Your task to perform on an android device: toggle translation in the chrome app Image 0: 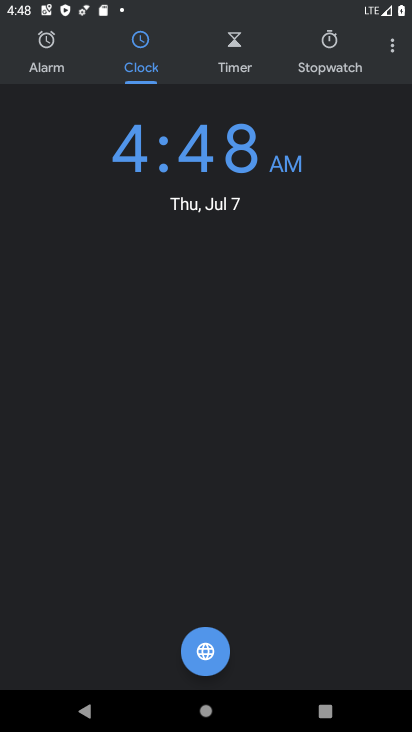
Step 0: press home button
Your task to perform on an android device: toggle translation in the chrome app Image 1: 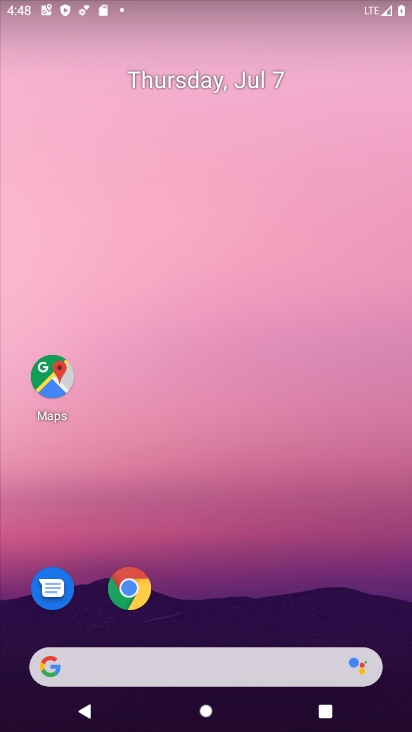
Step 1: drag from (258, 635) to (253, 19)
Your task to perform on an android device: toggle translation in the chrome app Image 2: 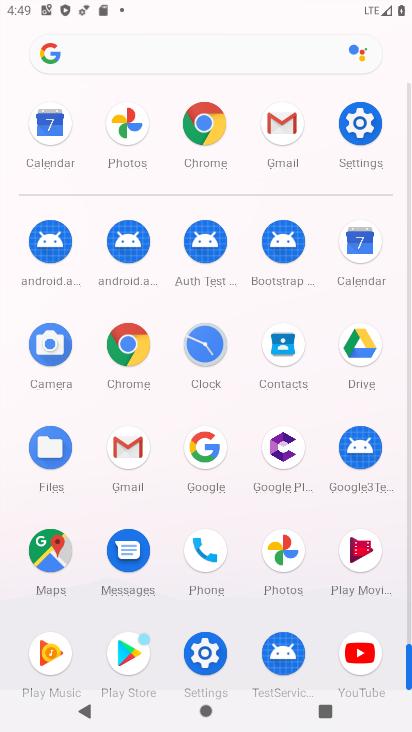
Step 2: click (128, 340)
Your task to perform on an android device: toggle translation in the chrome app Image 3: 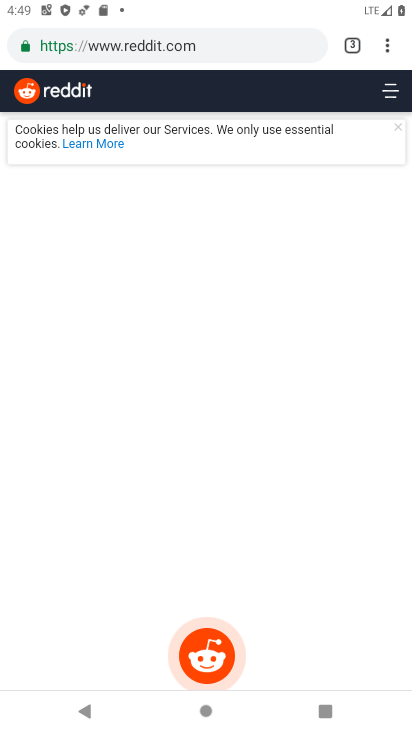
Step 3: click (383, 35)
Your task to perform on an android device: toggle translation in the chrome app Image 4: 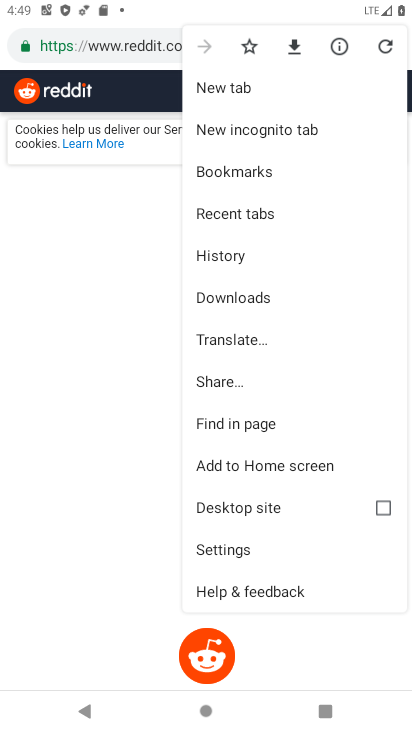
Step 4: click (240, 551)
Your task to perform on an android device: toggle translation in the chrome app Image 5: 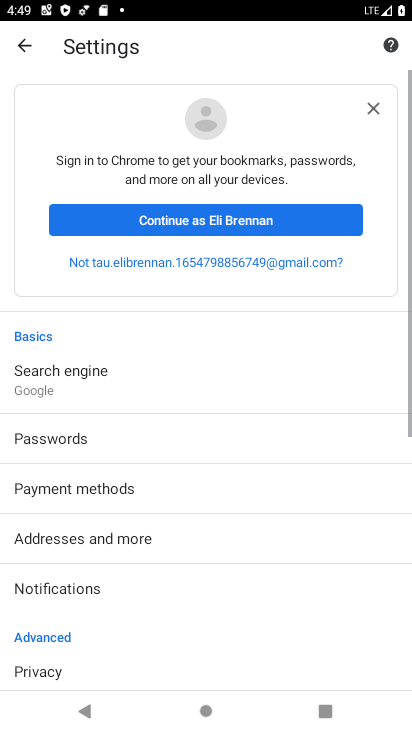
Step 5: drag from (187, 632) to (239, 196)
Your task to perform on an android device: toggle translation in the chrome app Image 6: 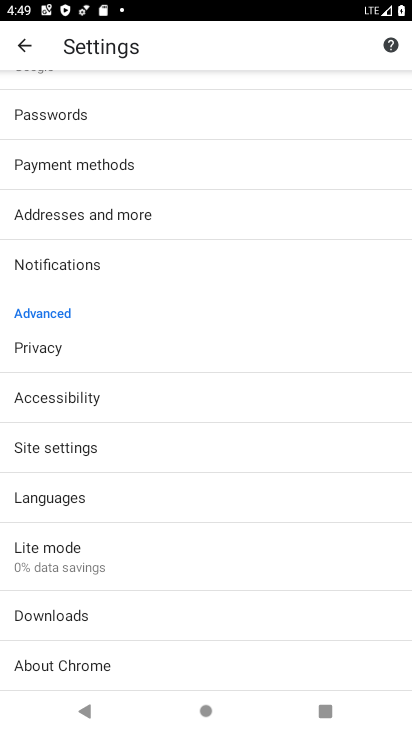
Step 6: click (91, 499)
Your task to perform on an android device: toggle translation in the chrome app Image 7: 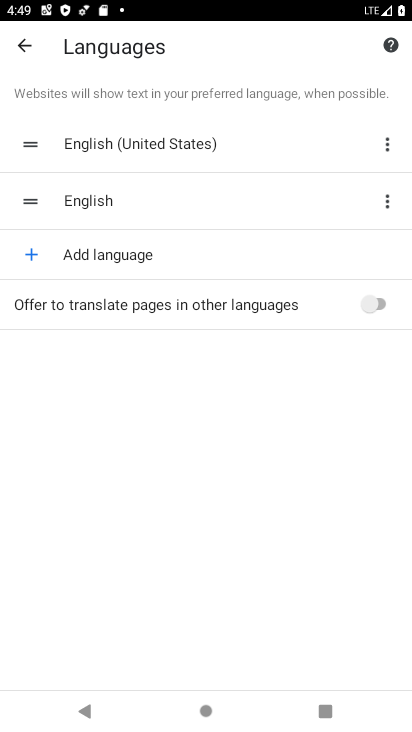
Step 7: click (382, 303)
Your task to perform on an android device: toggle translation in the chrome app Image 8: 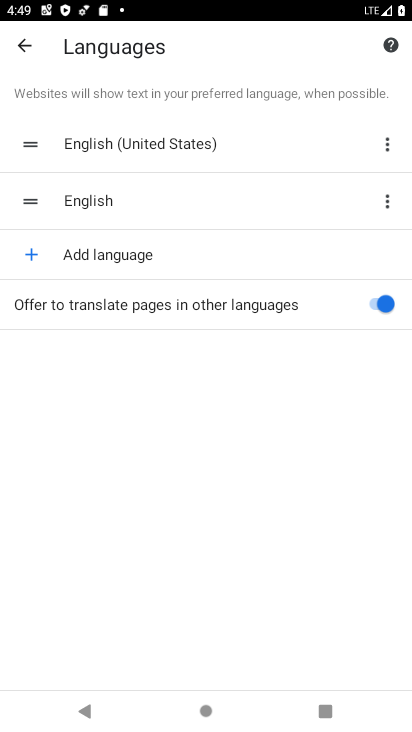
Step 8: task complete